Your task to perform on an android device: Open Google Chrome and click the shortcut for Amazon.com Image 0: 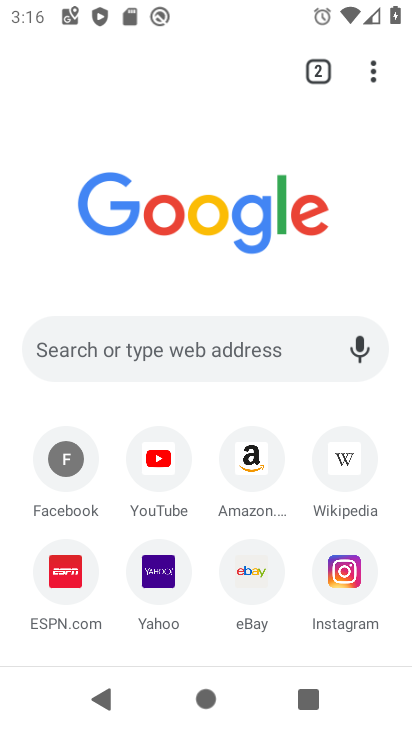
Step 0: press home button
Your task to perform on an android device: Open Google Chrome and click the shortcut for Amazon.com Image 1: 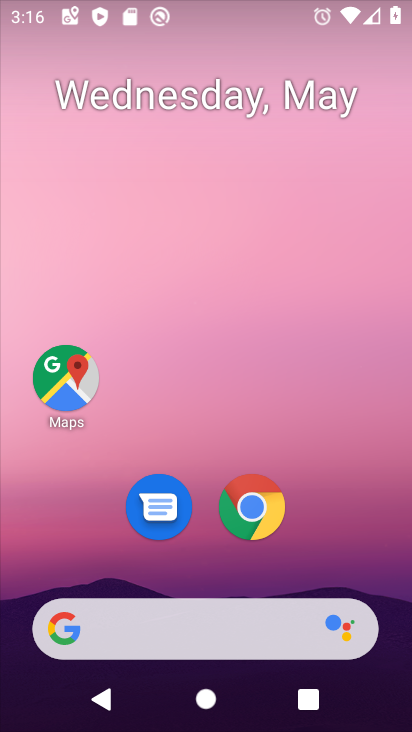
Step 1: click (252, 515)
Your task to perform on an android device: Open Google Chrome and click the shortcut for Amazon.com Image 2: 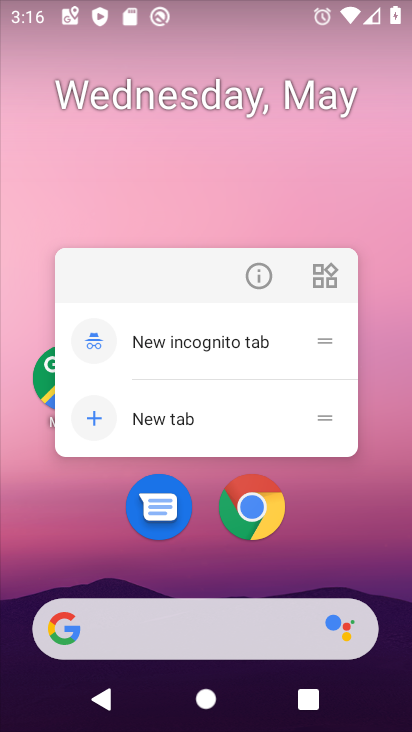
Step 2: click (252, 505)
Your task to perform on an android device: Open Google Chrome and click the shortcut for Amazon.com Image 3: 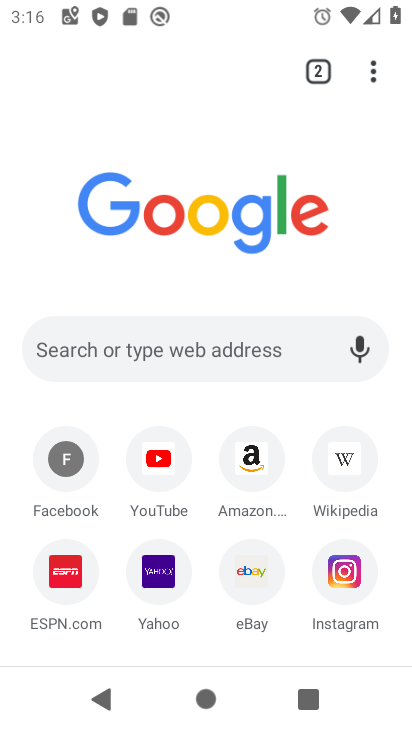
Step 3: click (252, 460)
Your task to perform on an android device: Open Google Chrome and click the shortcut for Amazon.com Image 4: 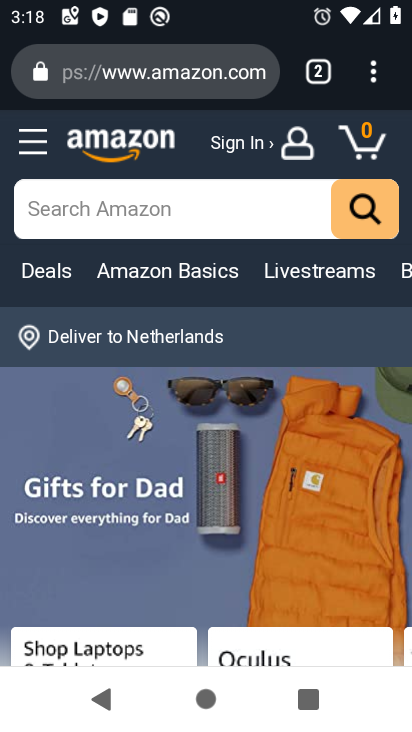
Step 4: task complete